Your task to perform on an android device: clear history in the chrome app Image 0: 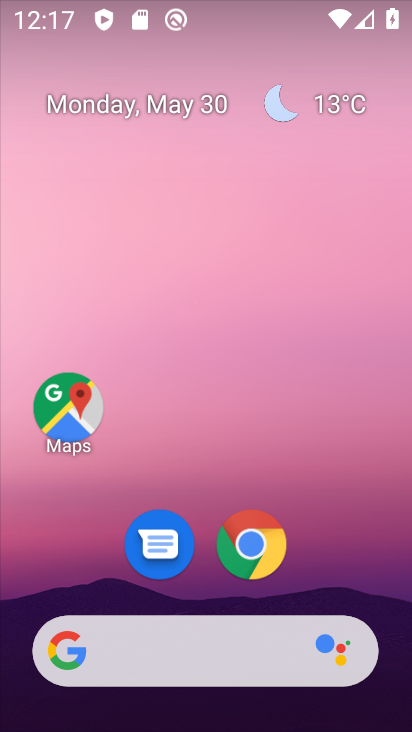
Step 0: click (248, 557)
Your task to perform on an android device: clear history in the chrome app Image 1: 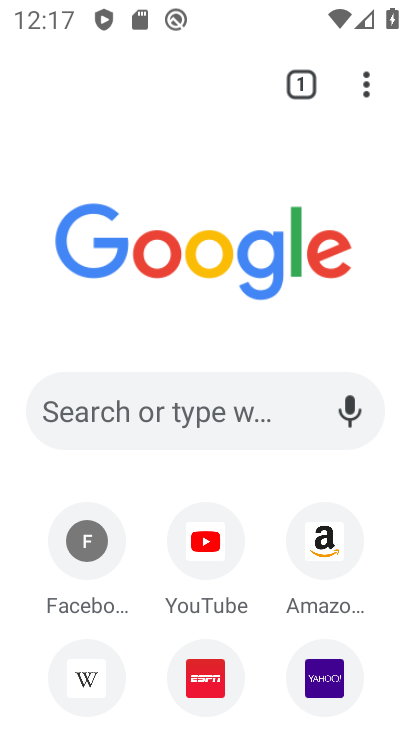
Step 1: click (371, 107)
Your task to perform on an android device: clear history in the chrome app Image 2: 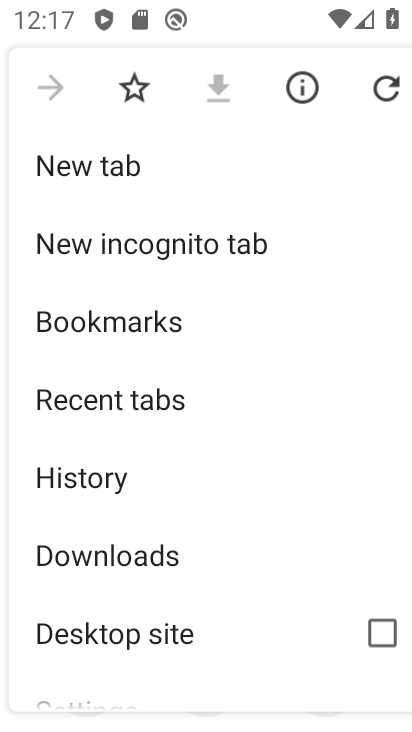
Step 2: click (197, 461)
Your task to perform on an android device: clear history in the chrome app Image 3: 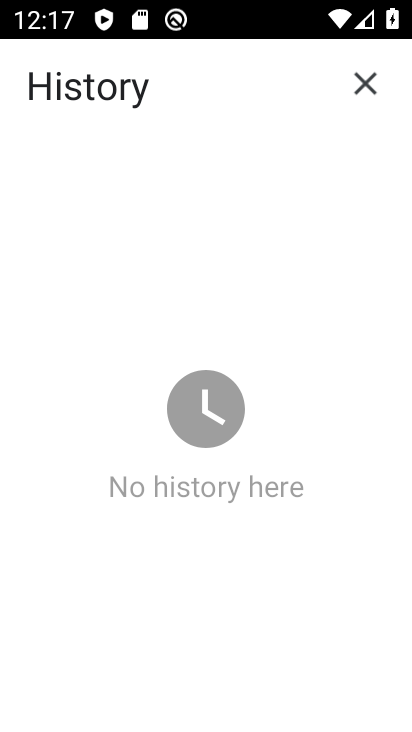
Step 3: task complete